Your task to perform on an android device: Search for "rayovac triple a" on costco.com, select the first entry, add it to the cart, then select checkout. Image 0: 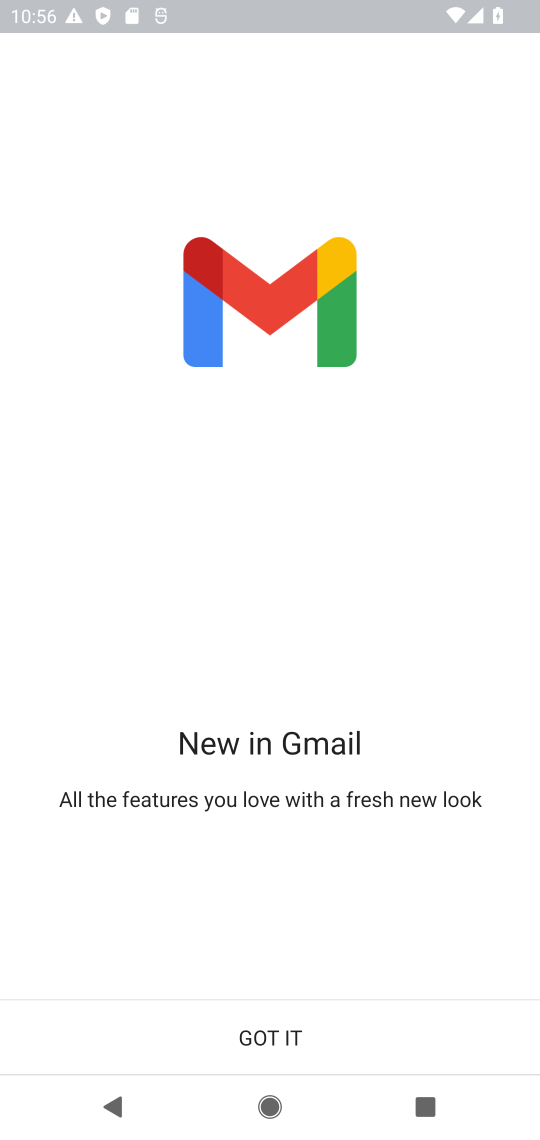
Step 0: press home button
Your task to perform on an android device: Search for "rayovac triple a" on costco.com, select the first entry, add it to the cart, then select checkout. Image 1: 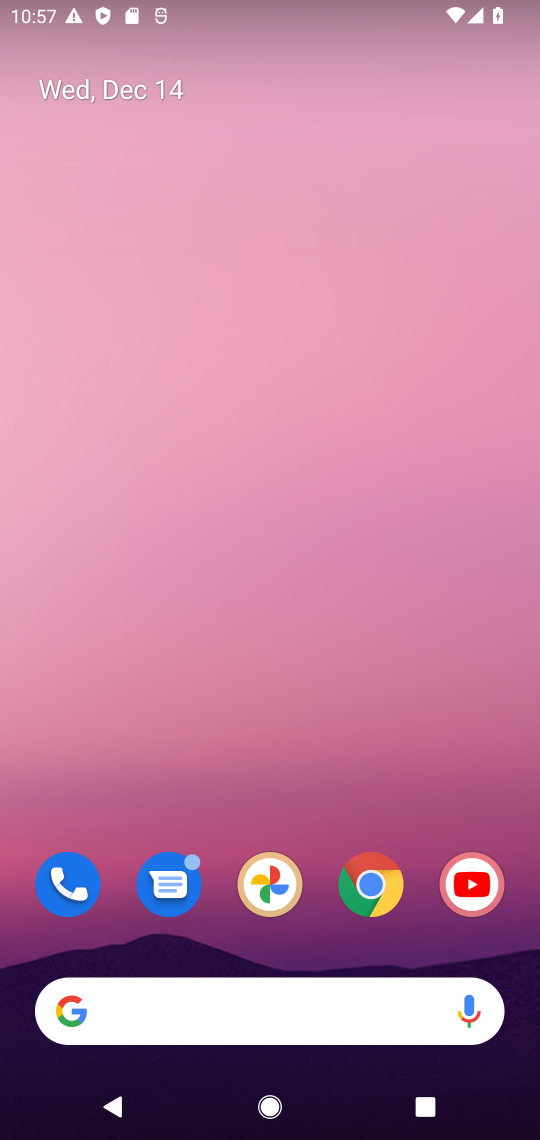
Step 1: click (362, 896)
Your task to perform on an android device: Search for "rayovac triple a" on costco.com, select the first entry, add it to the cart, then select checkout. Image 2: 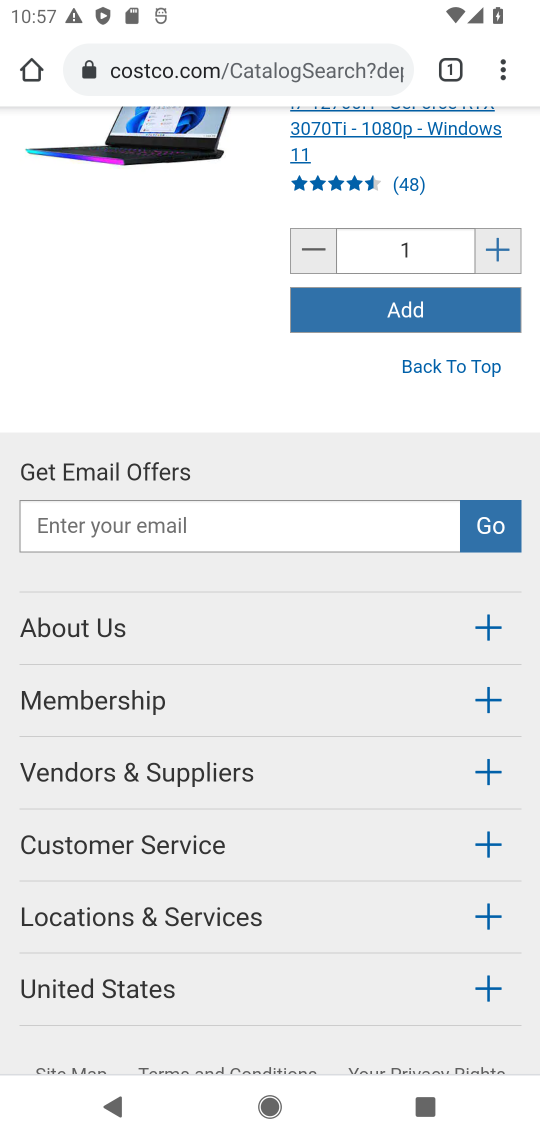
Step 2: drag from (431, 471) to (354, 1118)
Your task to perform on an android device: Search for "rayovac triple a" on costco.com, select the first entry, add it to the cart, then select checkout. Image 3: 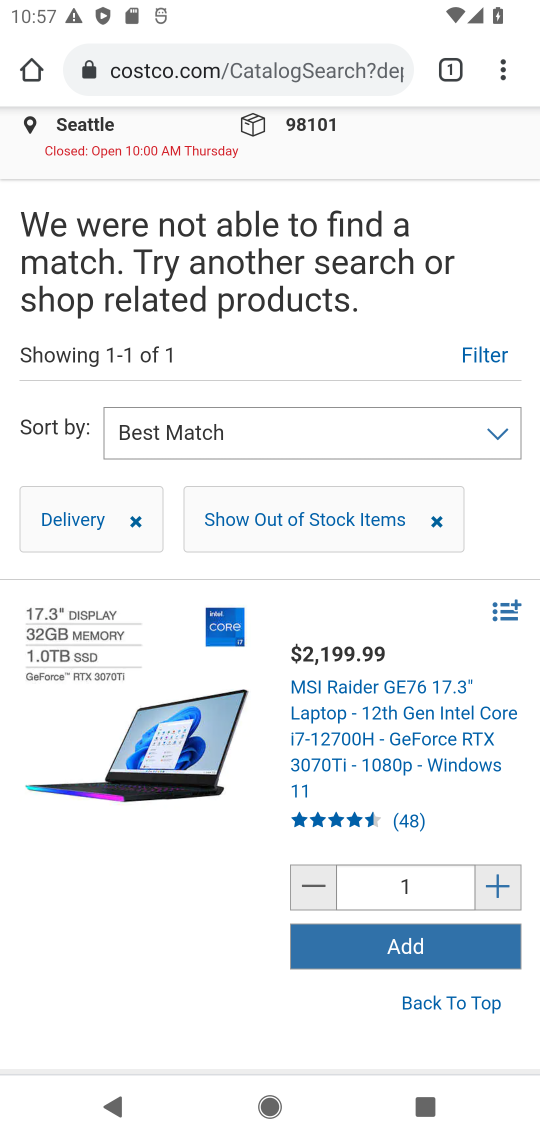
Step 3: drag from (300, 484) to (209, 593)
Your task to perform on an android device: Search for "rayovac triple a" on costco.com, select the first entry, add it to the cart, then select checkout. Image 4: 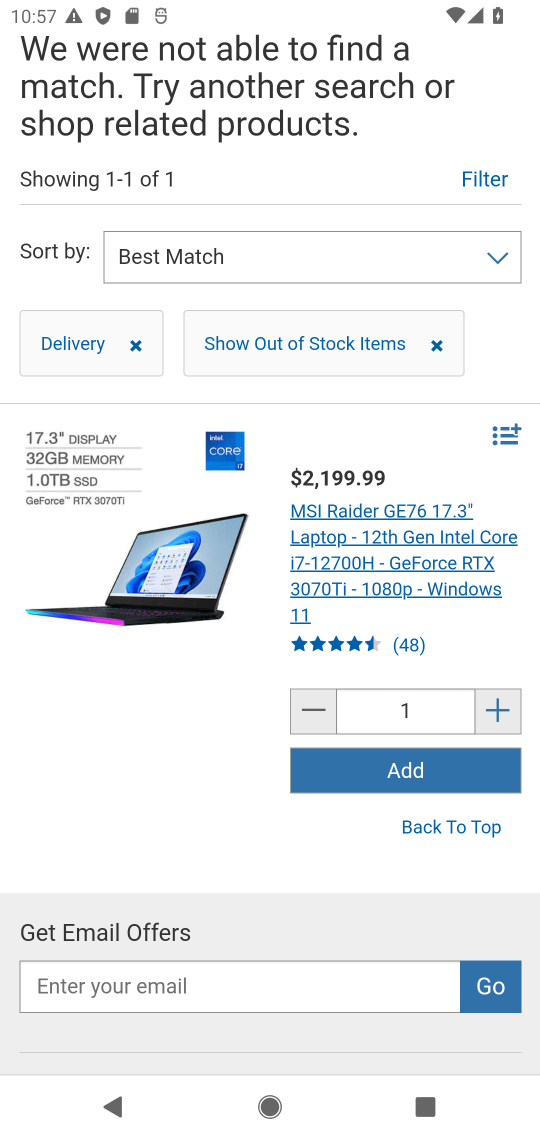
Step 4: drag from (207, 84) to (205, 424)
Your task to perform on an android device: Search for "rayovac triple a" on costco.com, select the first entry, add it to the cart, then select checkout. Image 5: 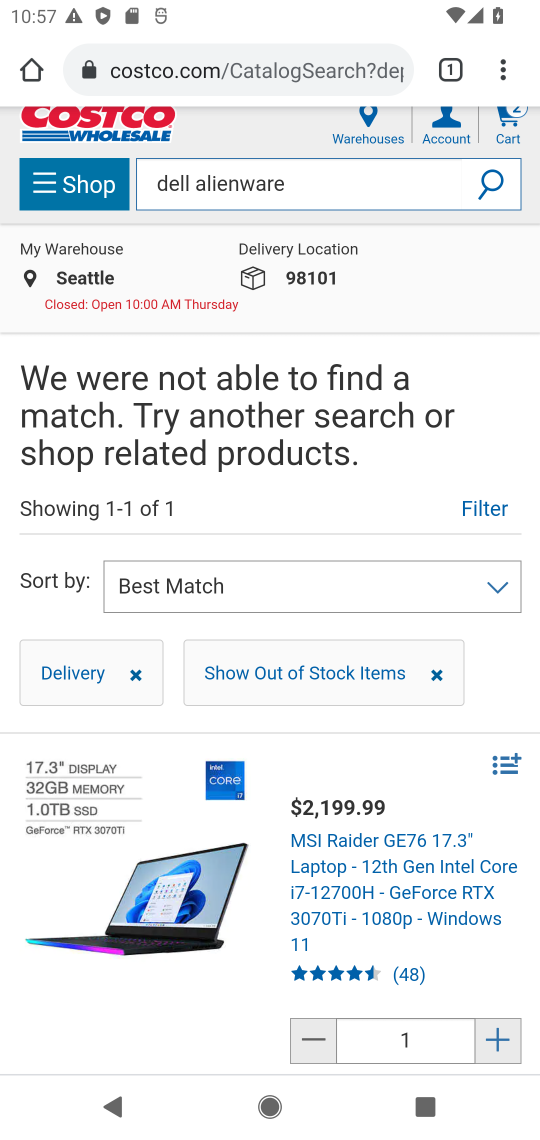
Step 5: click (239, 64)
Your task to perform on an android device: Search for "rayovac triple a" on costco.com, select the first entry, add it to the cart, then select checkout. Image 6: 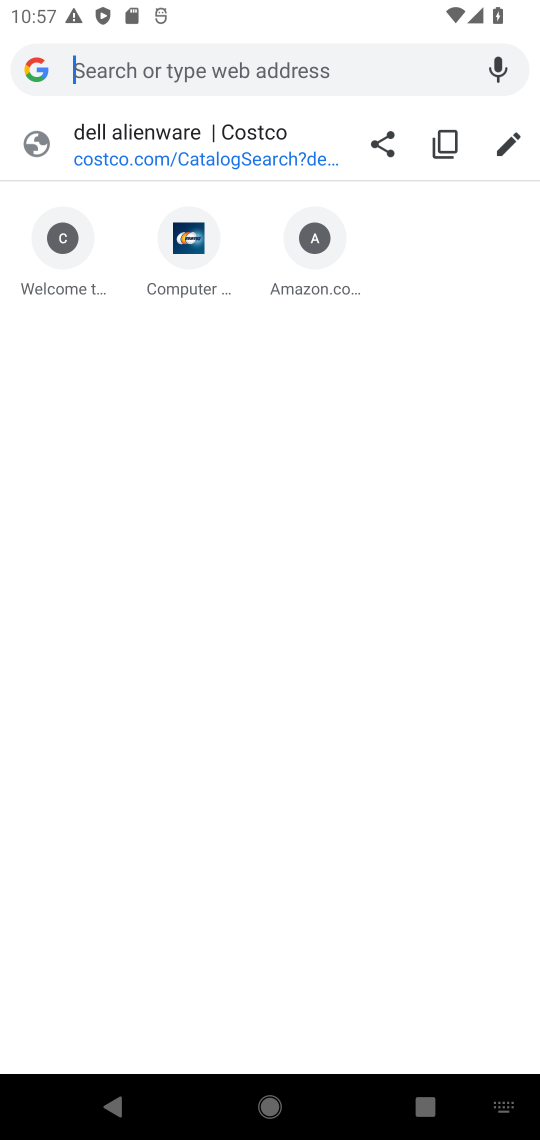
Step 6: type "costco.com"
Your task to perform on an android device: Search for "rayovac triple a" on costco.com, select the first entry, add it to the cart, then select checkout. Image 7: 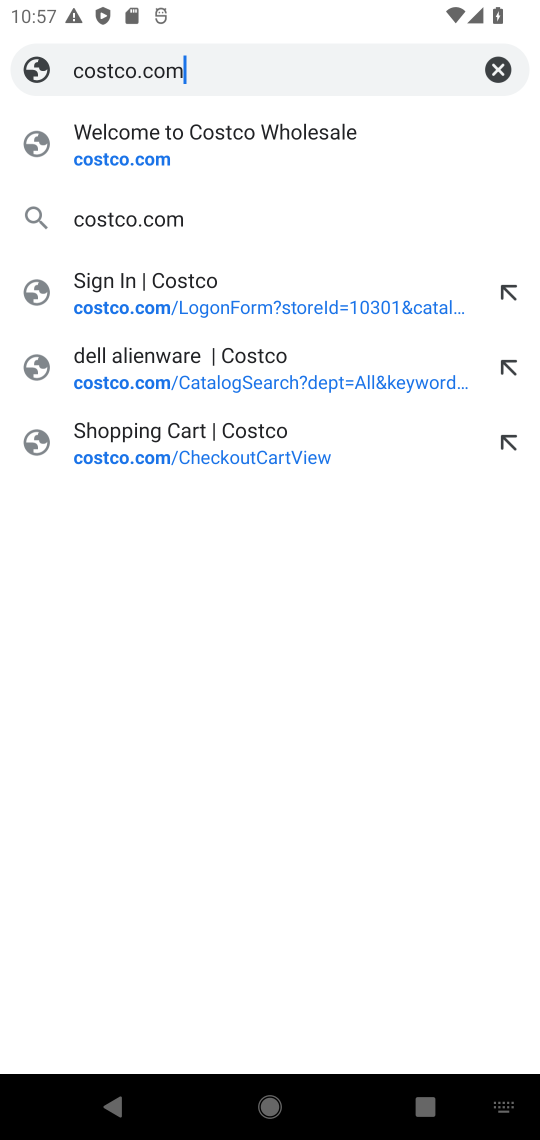
Step 7: click (164, 157)
Your task to perform on an android device: Search for "rayovac triple a" on costco.com, select the first entry, add it to the cart, then select checkout. Image 8: 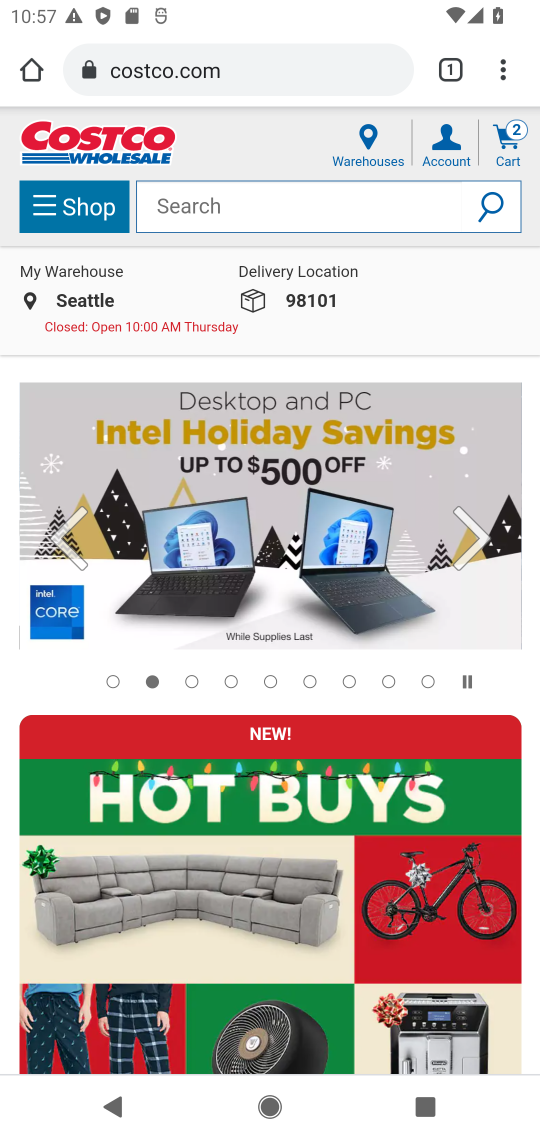
Step 8: click (309, 213)
Your task to perform on an android device: Search for "rayovac triple a" on costco.com, select the first entry, add it to the cart, then select checkout. Image 9: 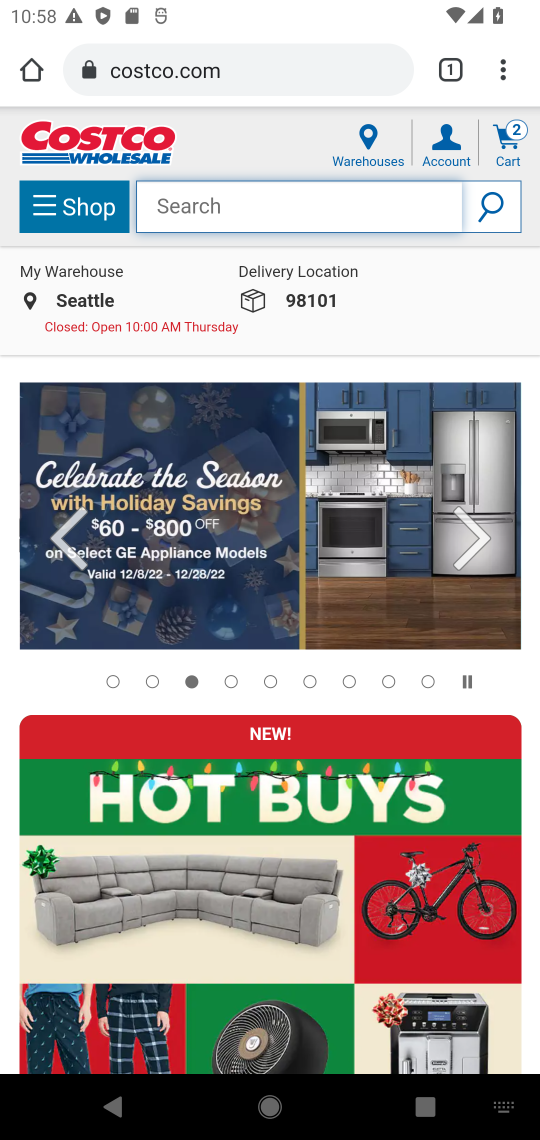
Step 9: type "rayovac triple a"
Your task to perform on an android device: Search for "rayovac triple a" on costco.com, select the first entry, add it to the cart, then select checkout. Image 10: 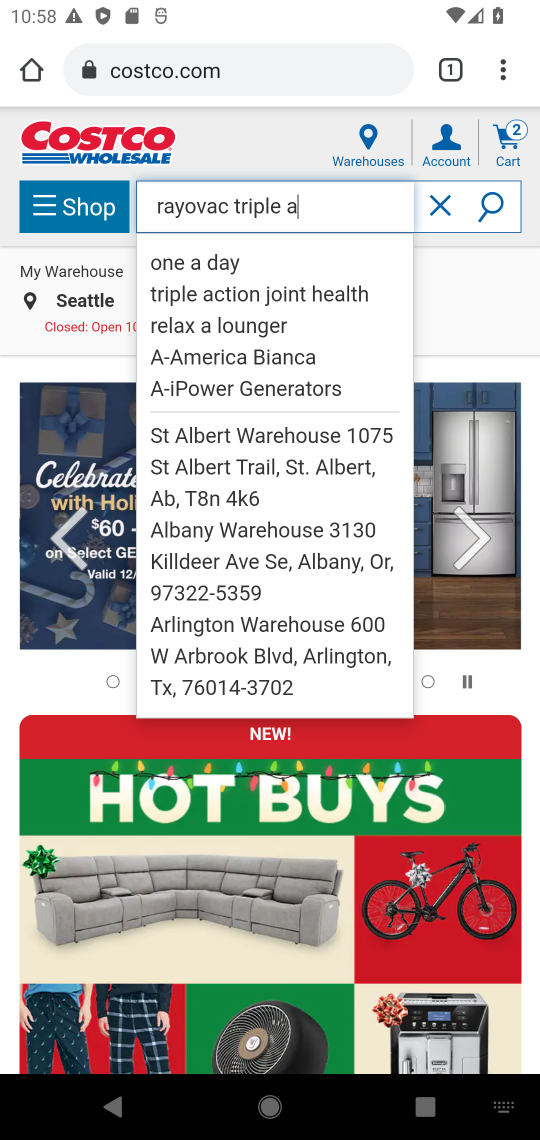
Step 10: press enter
Your task to perform on an android device: Search for "rayovac triple a" on costco.com, select the first entry, add it to the cart, then select checkout. Image 11: 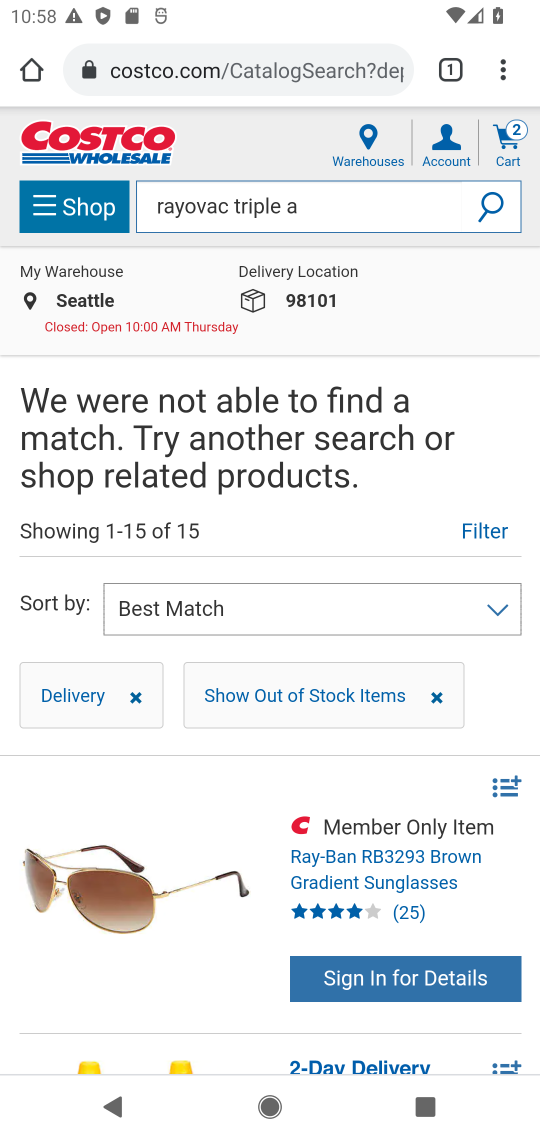
Step 11: task complete